Your task to perform on an android device: Open the calendar and show me this week's events? Image 0: 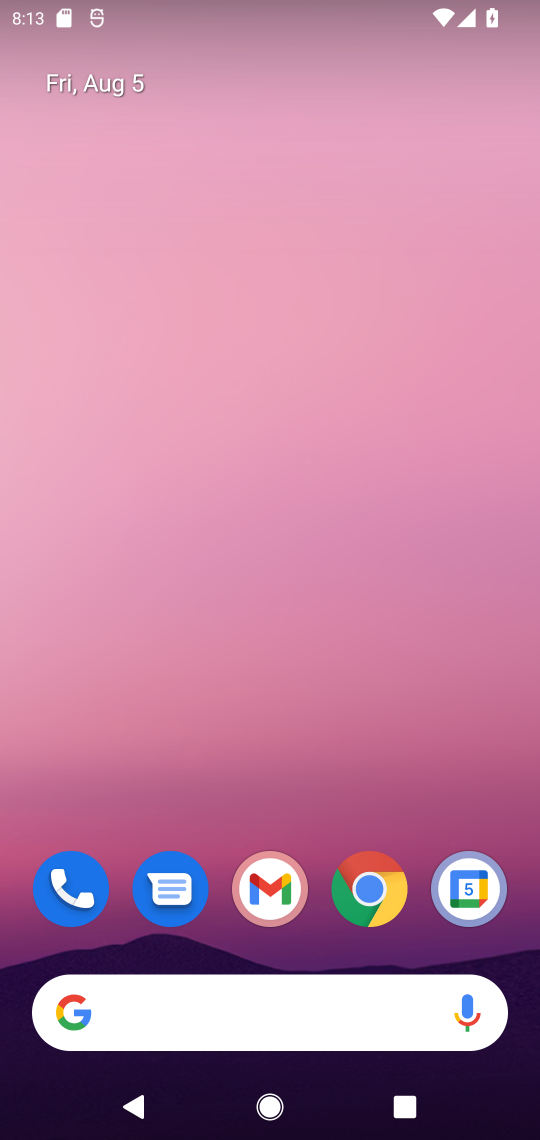
Step 0: drag from (256, 968) to (262, 461)
Your task to perform on an android device: Open the calendar and show me this week's events? Image 1: 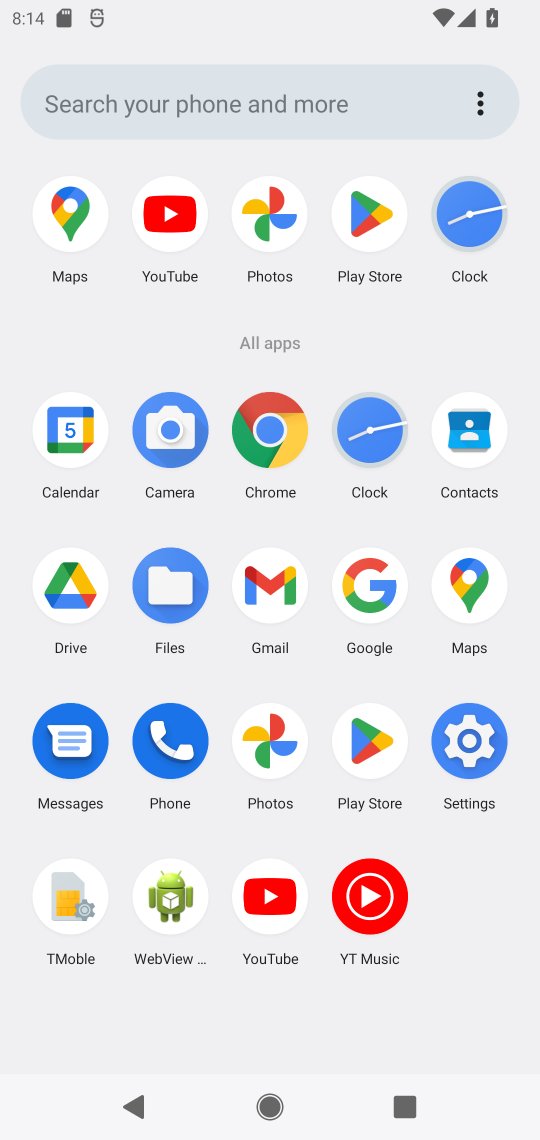
Step 1: click (72, 440)
Your task to perform on an android device: Open the calendar and show me this week's events? Image 2: 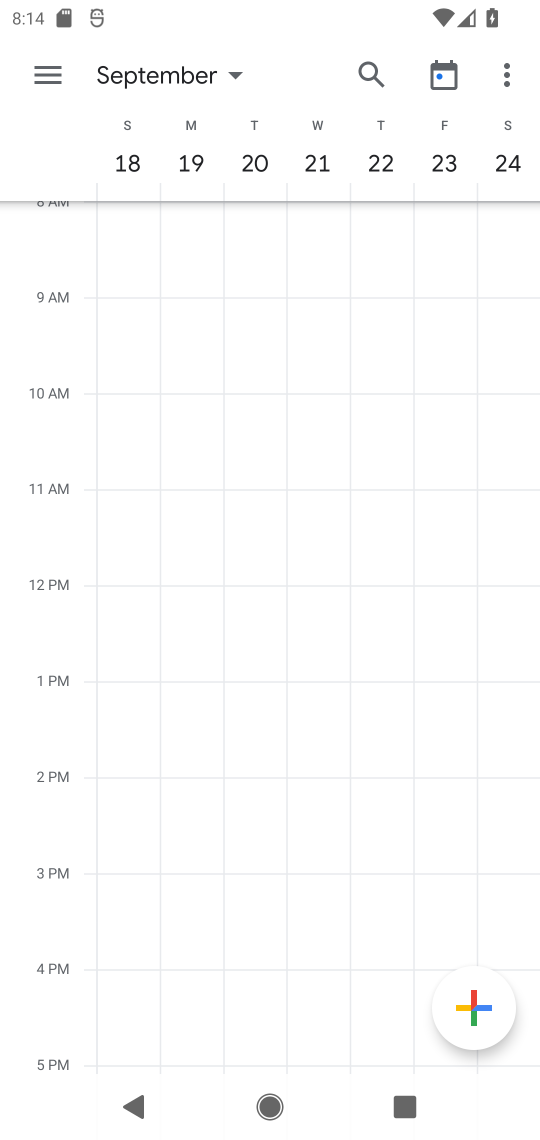
Step 2: task complete